Your task to perform on an android device: What is the recent news? Image 0: 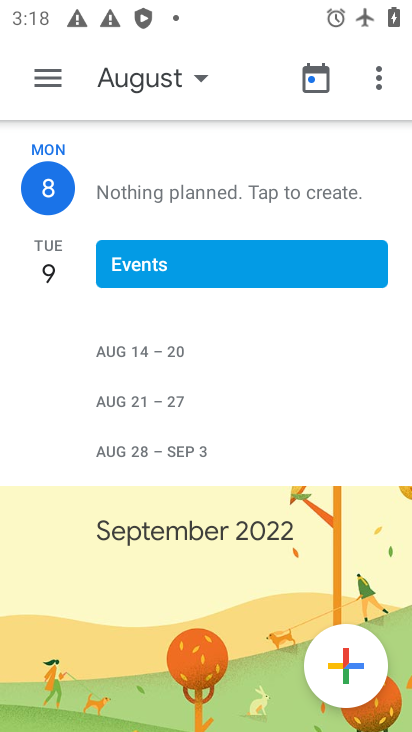
Step 0: press home button
Your task to perform on an android device: What is the recent news? Image 1: 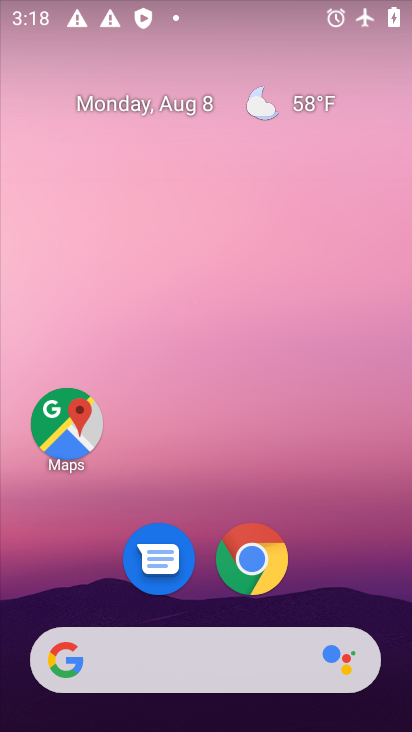
Step 1: drag from (206, 652) to (290, 160)
Your task to perform on an android device: What is the recent news? Image 2: 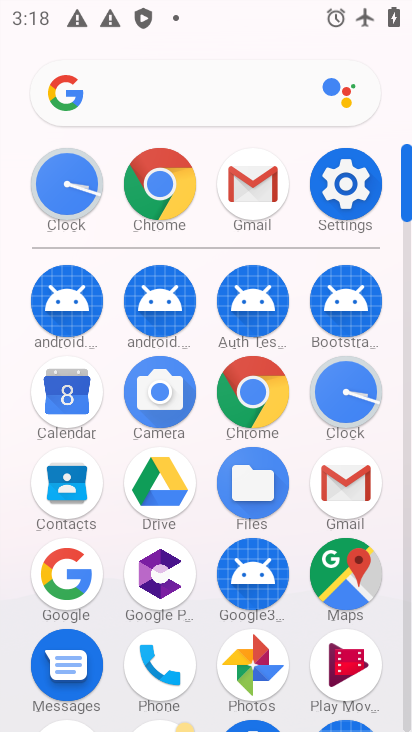
Step 2: click (62, 576)
Your task to perform on an android device: What is the recent news? Image 3: 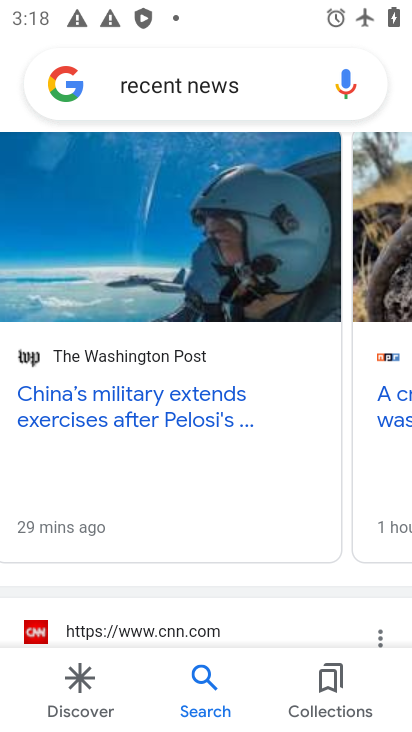
Step 3: click (254, 78)
Your task to perform on an android device: What is the recent news? Image 4: 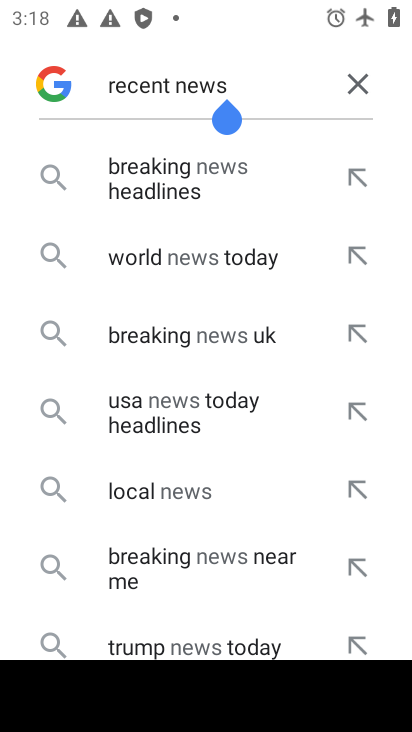
Step 4: click (359, 84)
Your task to perform on an android device: What is the recent news? Image 5: 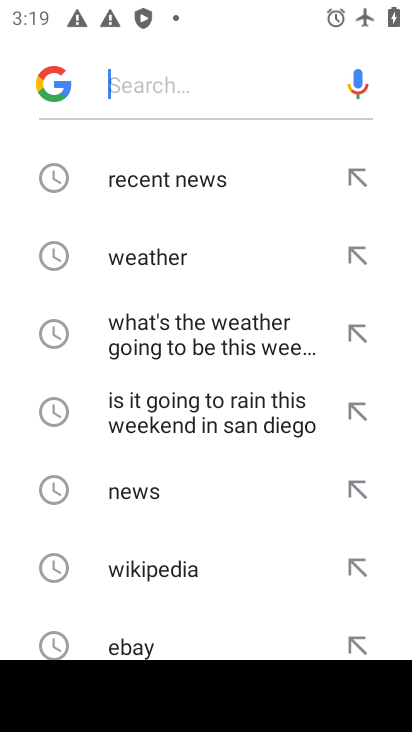
Step 5: type "recents news"
Your task to perform on an android device: What is the recent news? Image 6: 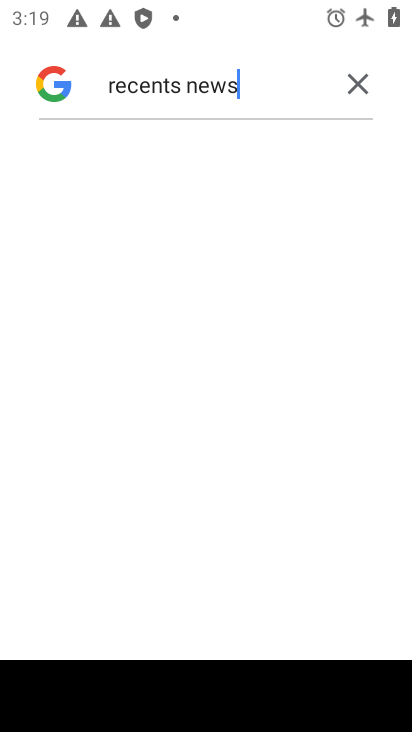
Step 6: task complete